Your task to perform on an android device: Is it going to rain this weekend? Image 0: 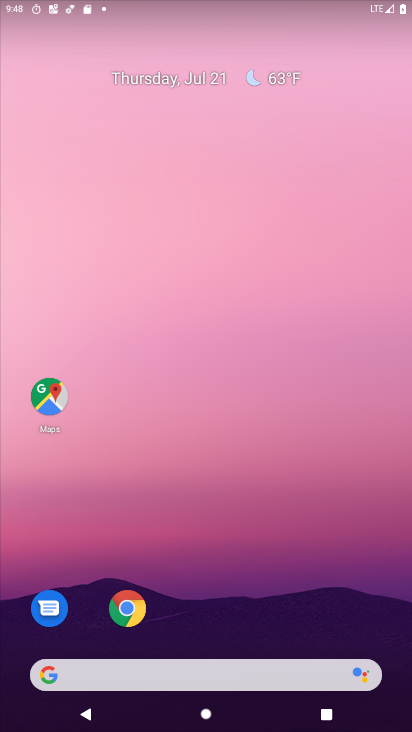
Step 0: drag from (219, 671) to (252, 211)
Your task to perform on an android device: Is it going to rain this weekend? Image 1: 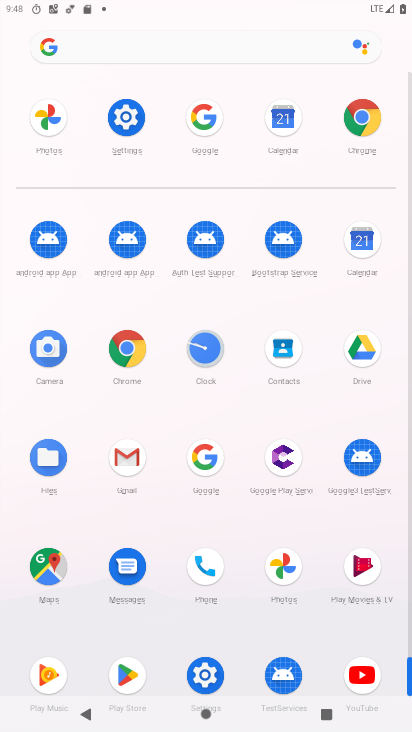
Step 1: click (208, 475)
Your task to perform on an android device: Is it going to rain this weekend? Image 2: 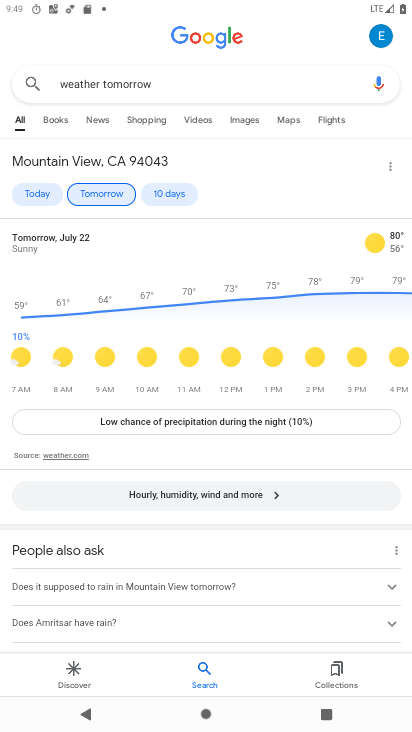
Step 2: click (161, 193)
Your task to perform on an android device: Is it going to rain this weekend? Image 3: 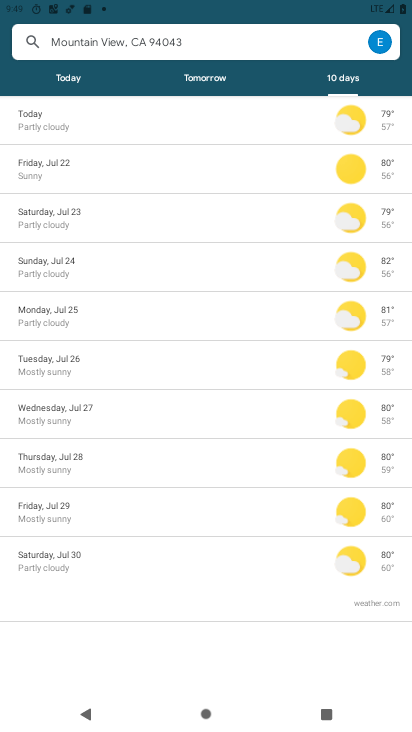
Step 3: task complete